Your task to perform on an android device: Go to Reddit.com Image 0: 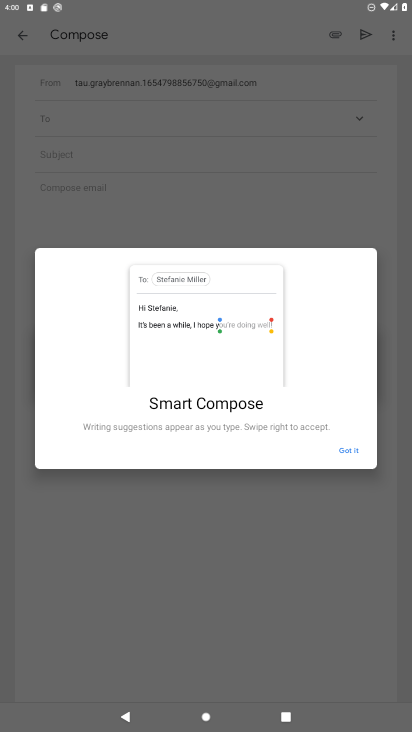
Step 0: press home button
Your task to perform on an android device: Go to Reddit.com Image 1: 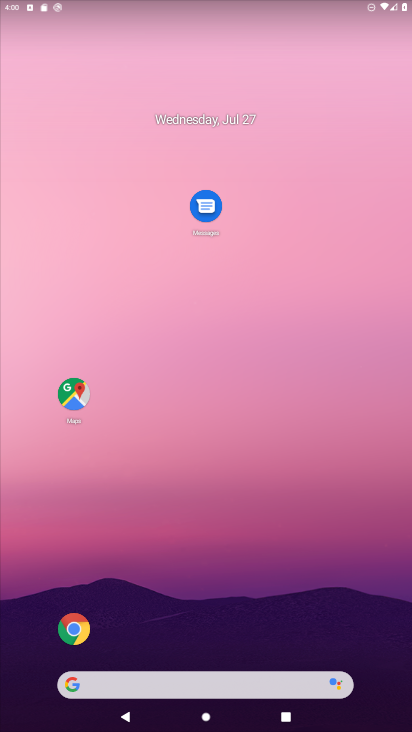
Step 1: click (165, 694)
Your task to perform on an android device: Go to Reddit.com Image 2: 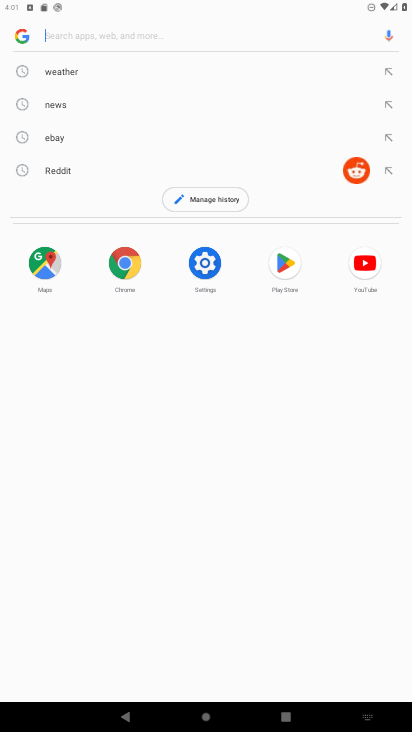
Step 2: type "reddit"
Your task to perform on an android device: Go to Reddit.com Image 3: 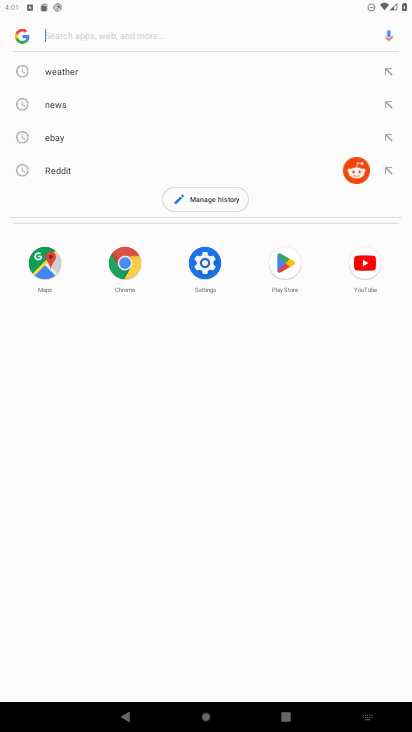
Step 3: click (52, 171)
Your task to perform on an android device: Go to Reddit.com Image 4: 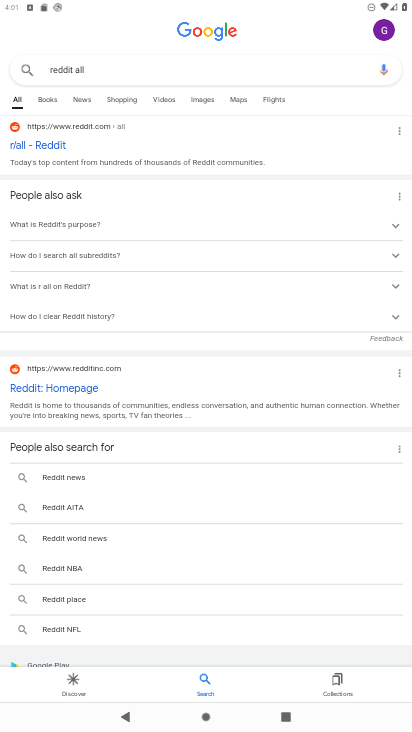
Step 4: click (19, 333)
Your task to perform on an android device: Go to Reddit.com Image 5: 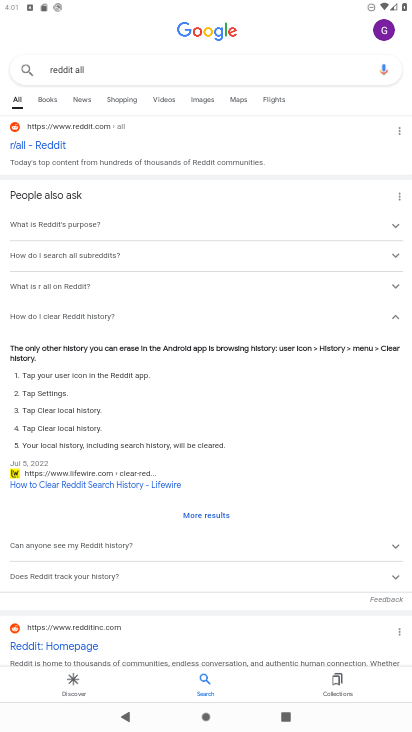
Step 5: click (27, 153)
Your task to perform on an android device: Go to Reddit.com Image 6: 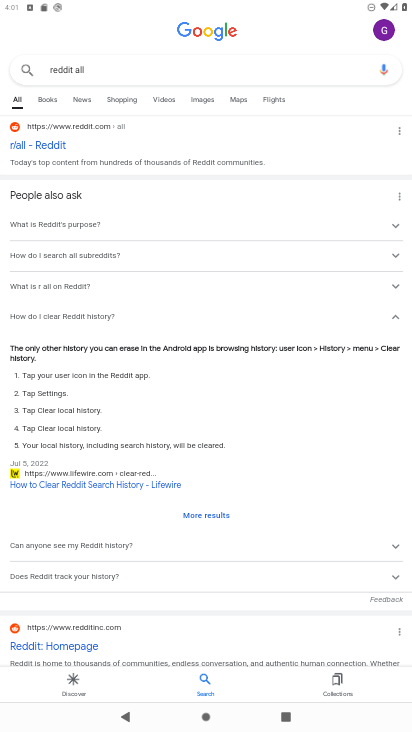
Step 6: click (55, 149)
Your task to perform on an android device: Go to Reddit.com Image 7: 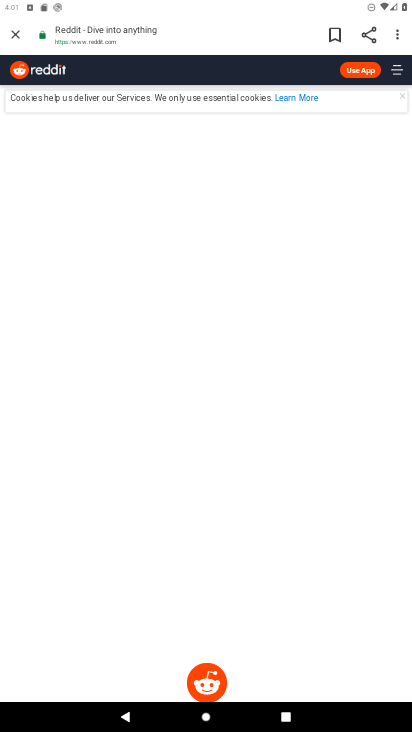
Step 7: task complete